Your task to perform on an android device: Open calendar and show me the first week of next month Image 0: 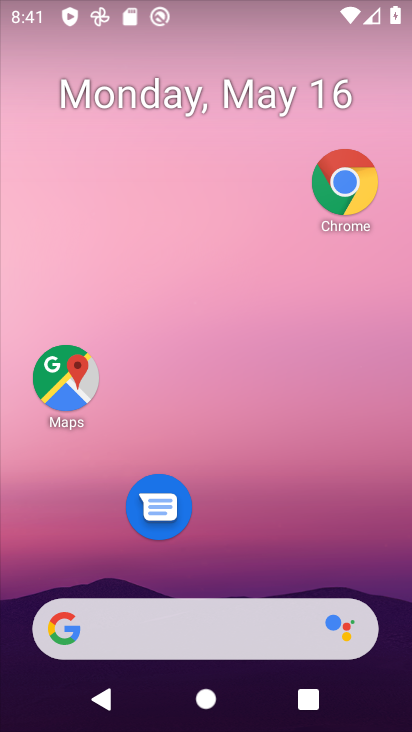
Step 0: drag from (280, 567) to (339, 113)
Your task to perform on an android device: Open calendar and show me the first week of next month Image 1: 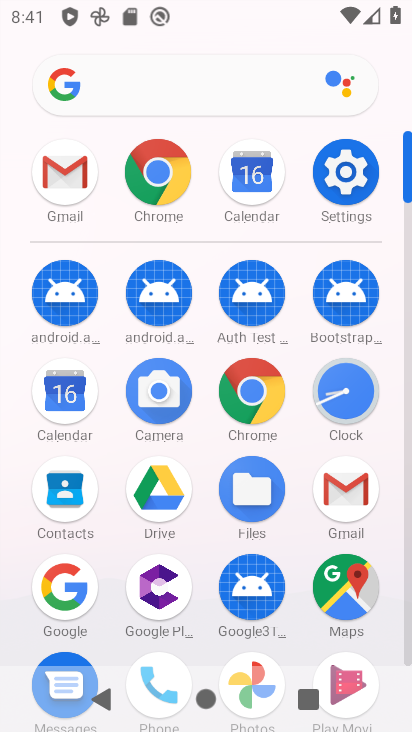
Step 1: click (249, 179)
Your task to perform on an android device: Open calendar and show me the first week of next month Image 2: 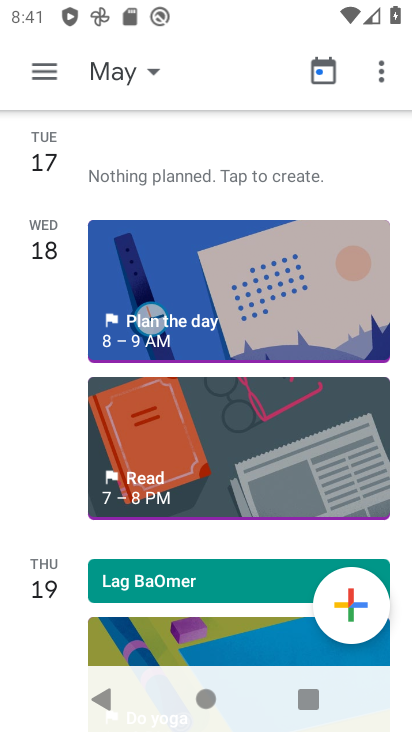
Step 2: click (148, 67)
Your task to perform on an android device: Open calendar and show me the first week of next month Image 3: 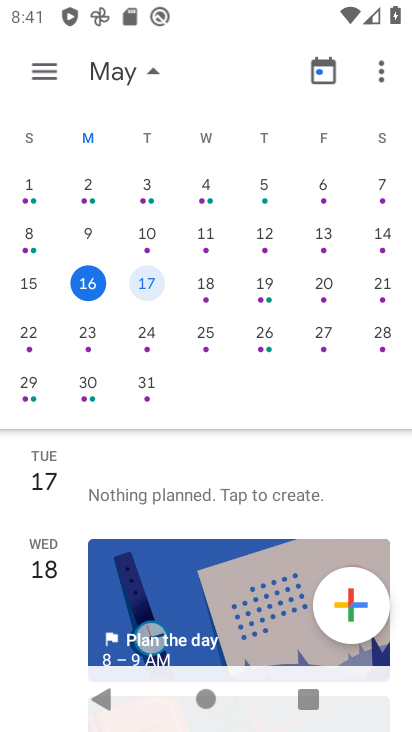
Step 3: drag from (396, 207) to (49, 217)
Your task to perform on an android device: Open calendar and show me the first week of next month Image 4: 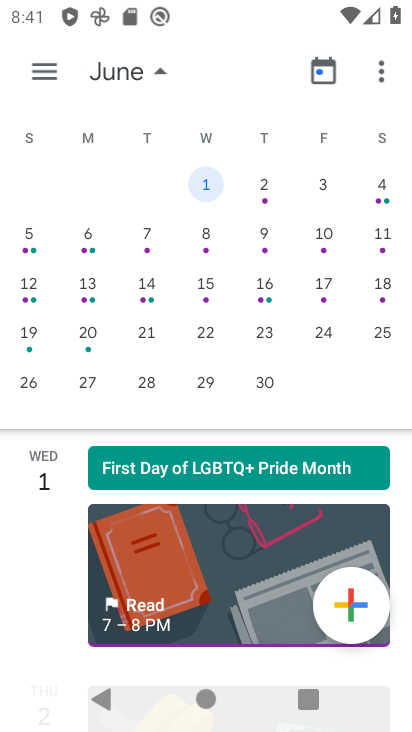
Step 4: click (80, 242)
Your task to perform on an android device: Open calendar and show me the first week of next month Image 5: 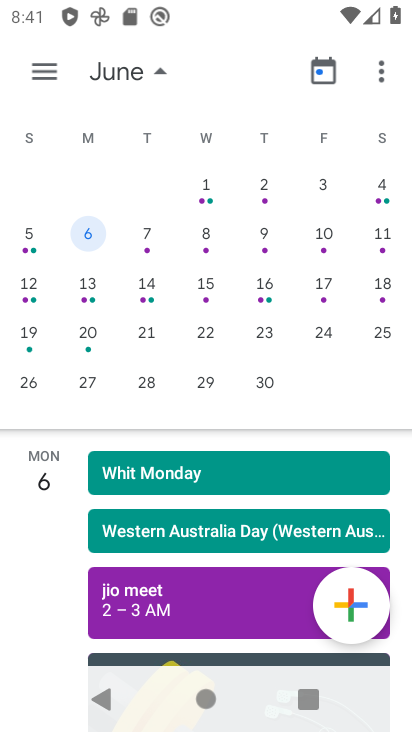
Step 5: task complete